Your task to perform on an android device: Empty the shopping cart on bestbuy.com. Add "asus rog" to the cart on bestbuy.com Image 0: 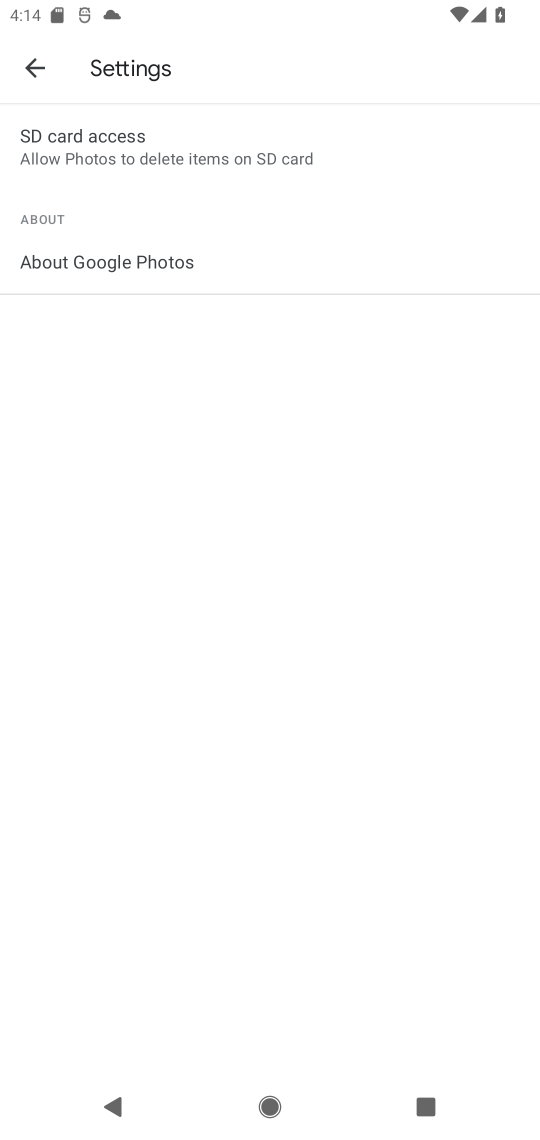
Step 0: press home button
Your task to perform on an android device: Empty the shopping cart on bestbuy.com. Add "asus rog" to the cart on bestbuy.com Image 1: 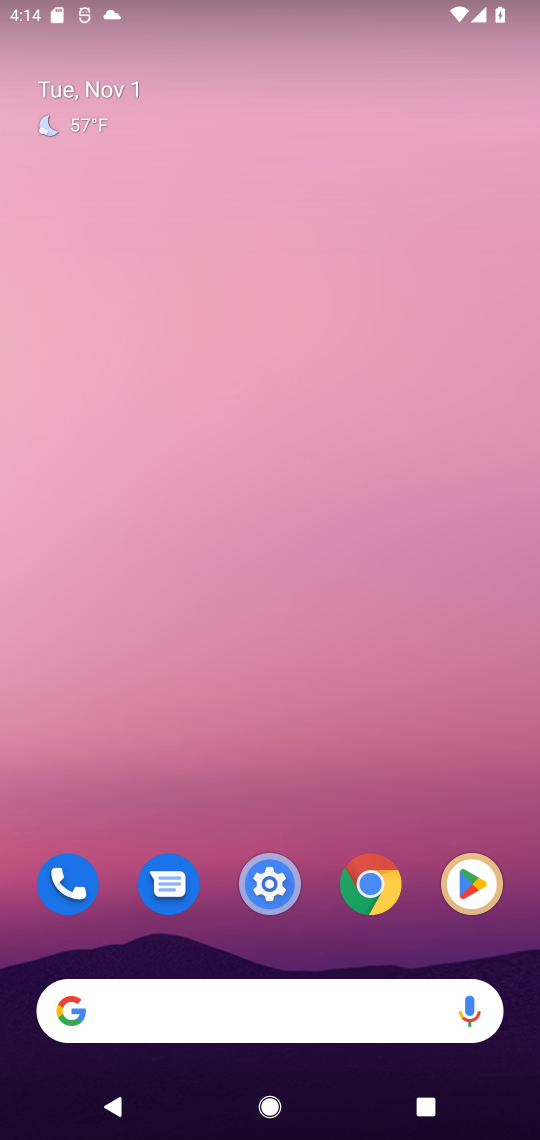
Step 1: press home button
Your task to perform on an android device: Empty the shopping cart on bestbuy.com. Add "asus rog" to the cart on bestbuy.com Image 2: 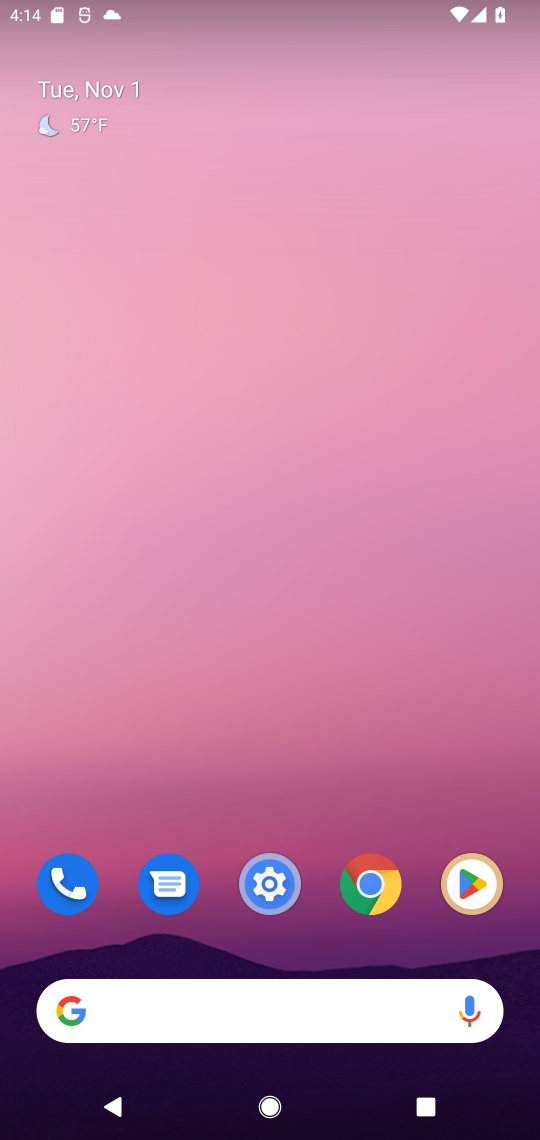
Step 2: click (101, 1014)
Your task to perform on an android device: Empty the shopping cart on bestbuy.com. Add "asus rog" to the cart on bestbuy.com Image 3: 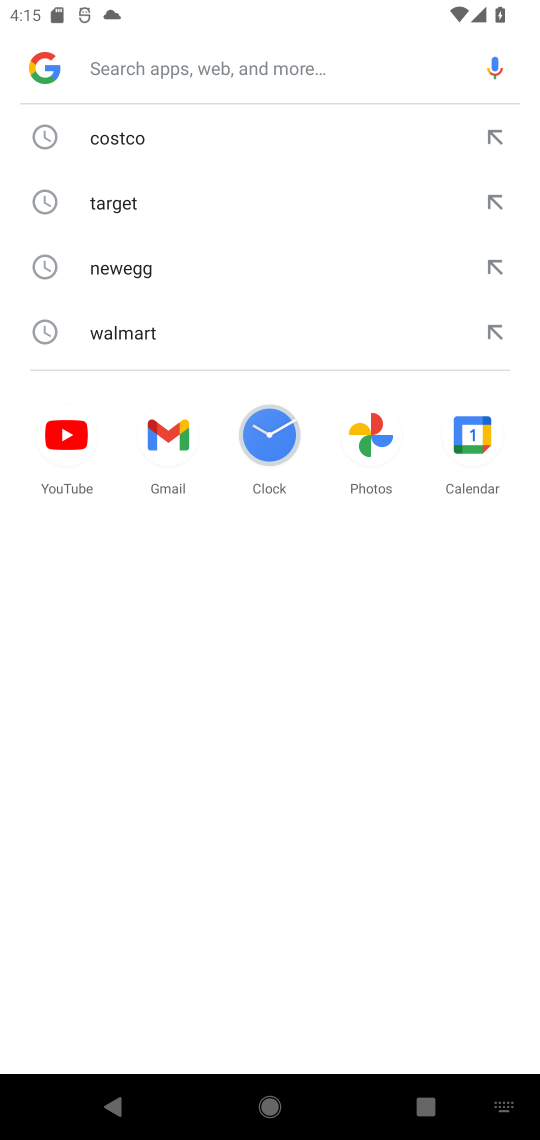
Step 3: type "bestbuy.com"
Your task to perform on an android device: Empty the shopping cart on bestbuy.com. Add "asus rog" to the cart on bestbuy.com Image 4: 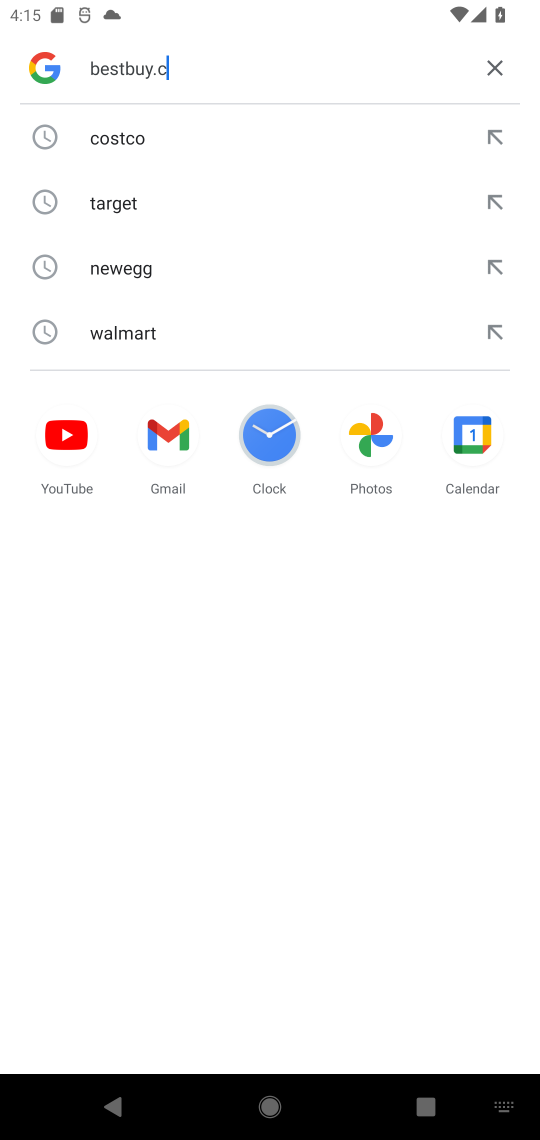
Step 4: press enter
Your task to perform on an android device: Empty the shopping cart on bestbuy.com. Add "asus rog" to the cart on bestbuy.com Image 5: 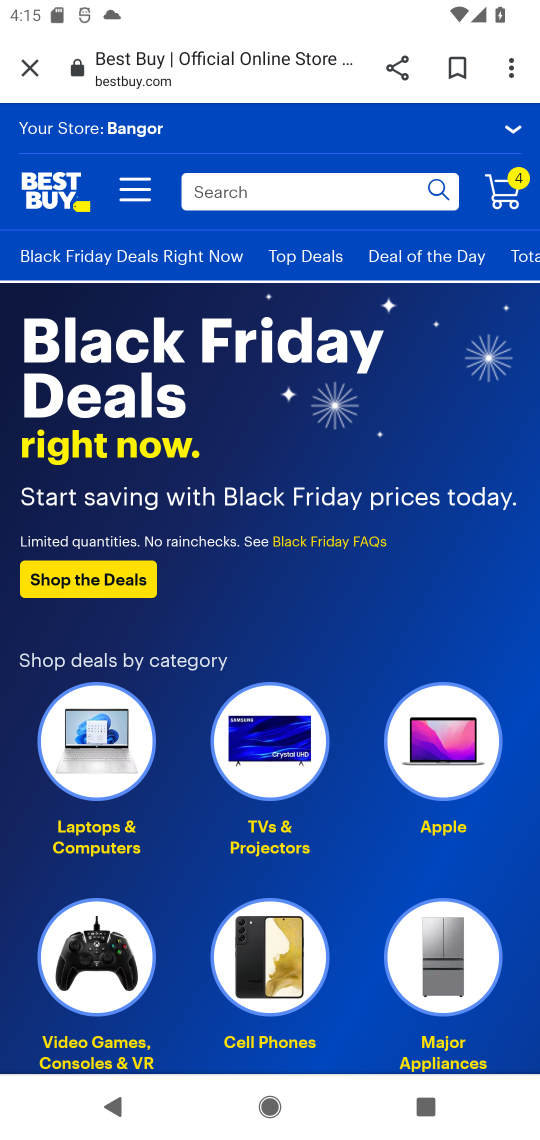
Step 5: click (505, 183)
Your task to perform on an android device: Empty the shopping cart on bestbuy.com. Add "asus rog" to the cart on bestbuy.com Image 6: 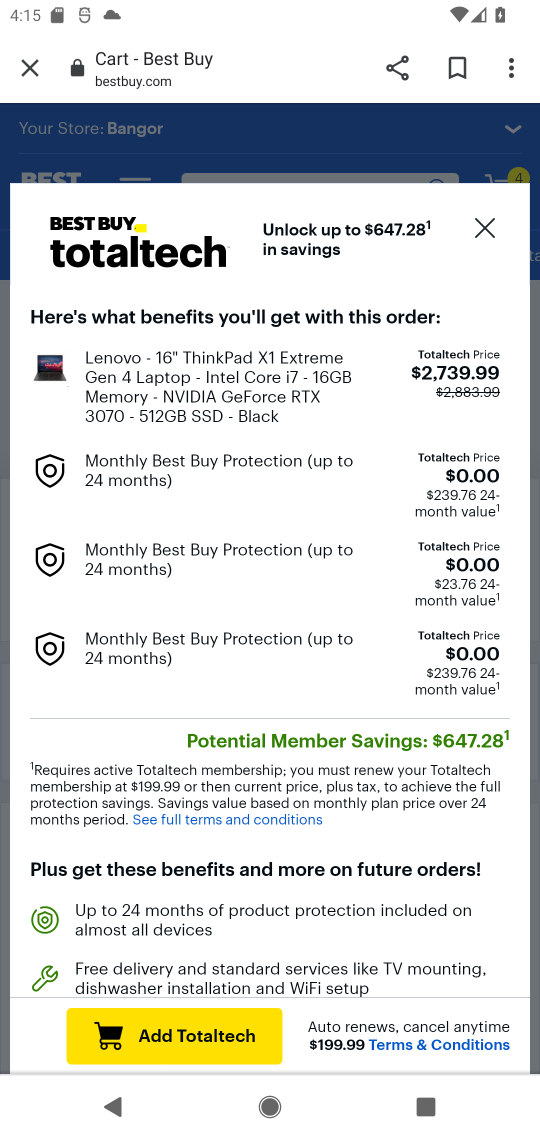
Step 6: click (485, 231)
Your task to perform on an android device: Empty the shopping cart on bestbuy.com. Add "asus rog" to the cart on bestbuy.com Image 7: 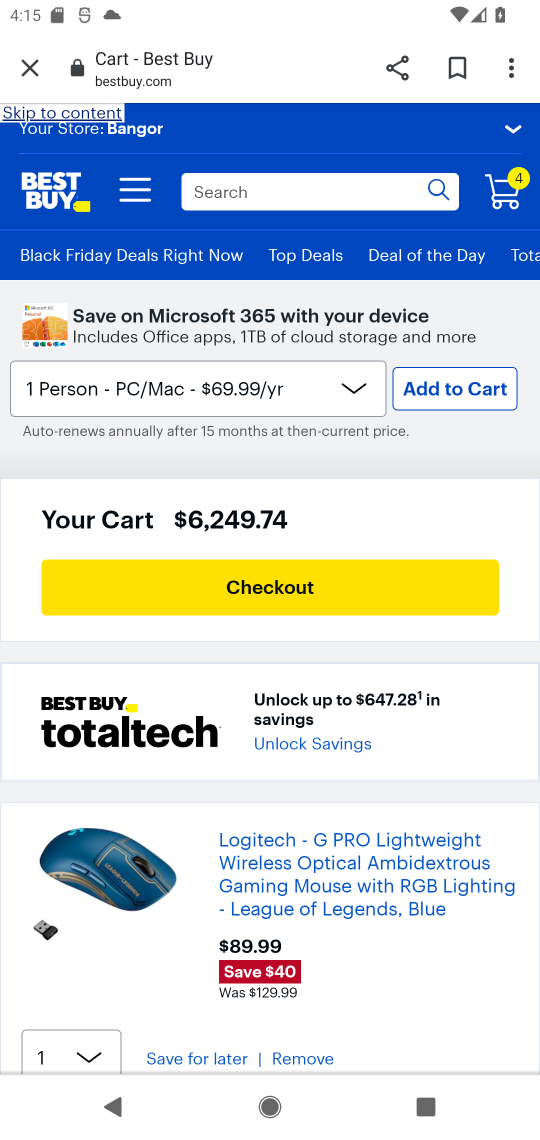
Step 7: drag from (330, 858) to (320, 523)
Your task to perform on an android device: Empty the shopping cart on bestbuy.com. Add "asus rog" to the cart on bestbuy.com Image 8: 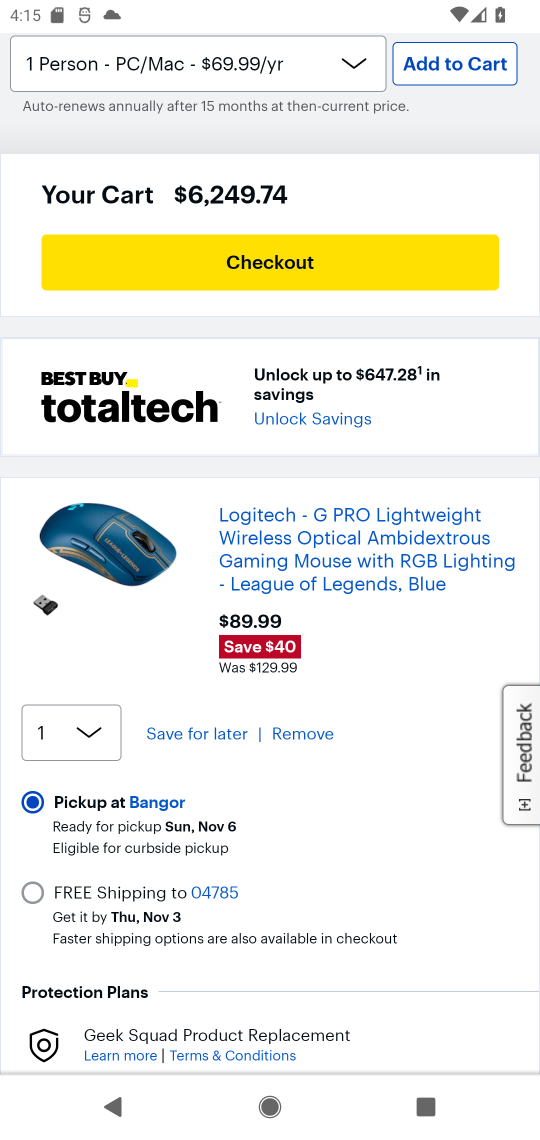
Step 8: drag from (408, 458) to (382, 810)
Your task to perform on an android device: Empty the shopping cart on bestbuy.com. Add "asus rog" to the cart on bestbuy.com Image 9: 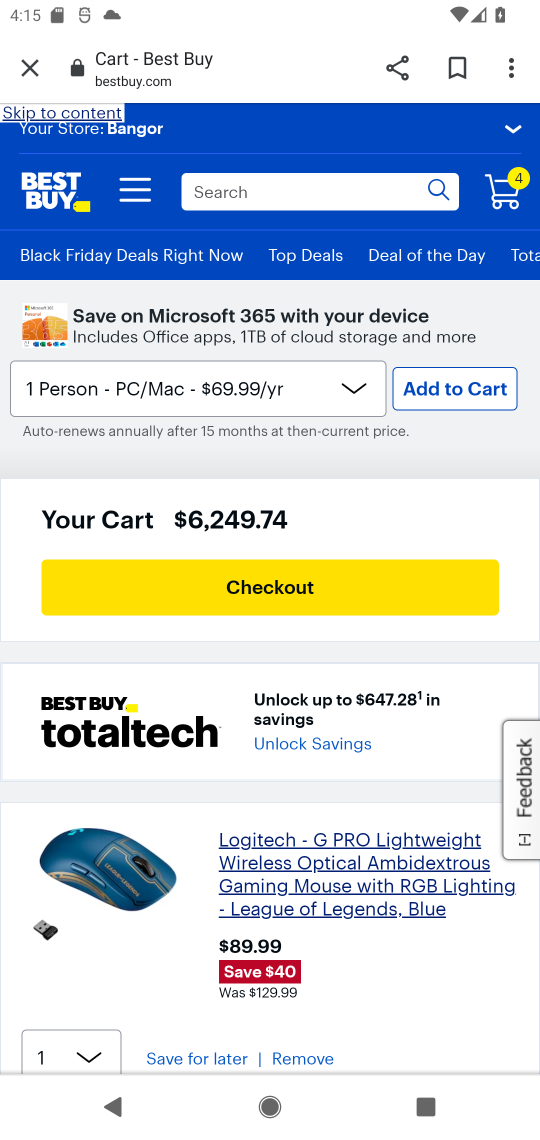
Step 9: press back button
Your task to perform on an android device: Empty the shopping cart on bestbuy.com. Add "asus rog" to the cart on bestbuy.com Image 10: 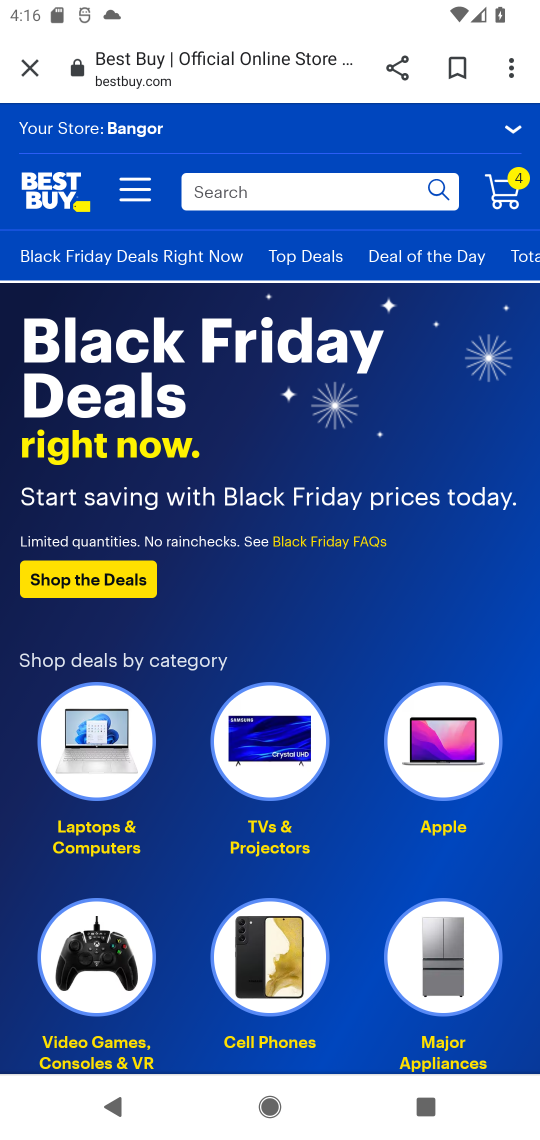
Step 10: click (493, 194)
Your task to perform on an android device: Empty the shopping cart on bestbuy.com. Add "asus rog" to the cart on bestbuy.com Image 11: 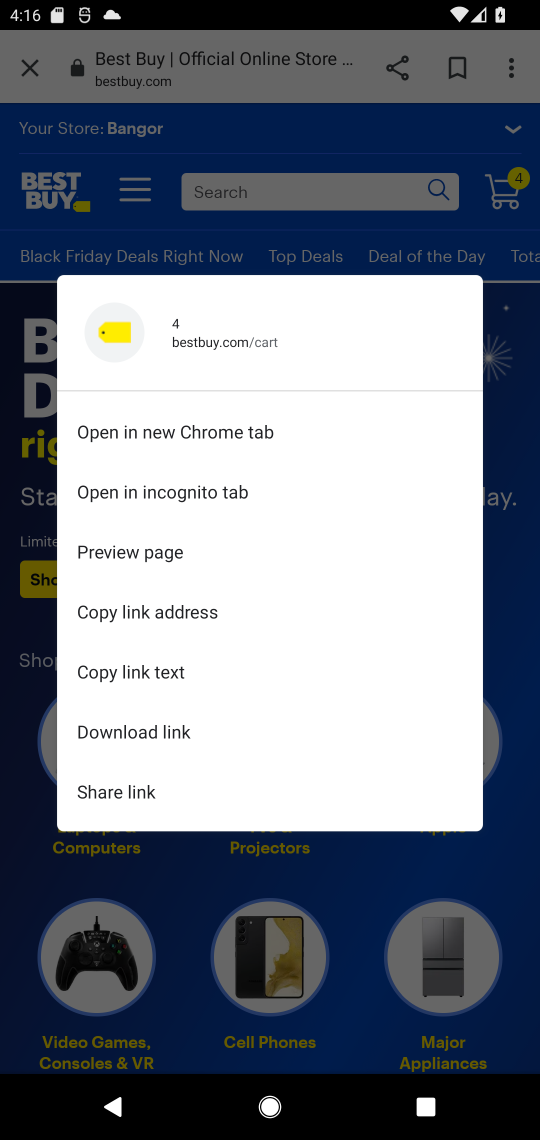
Step 11: click (391, 895)
Your task to perform on an android device: Empty the shopping cart on bestbuy.com. Add "asus rog" to the cart on bestbuy.com Image 12: 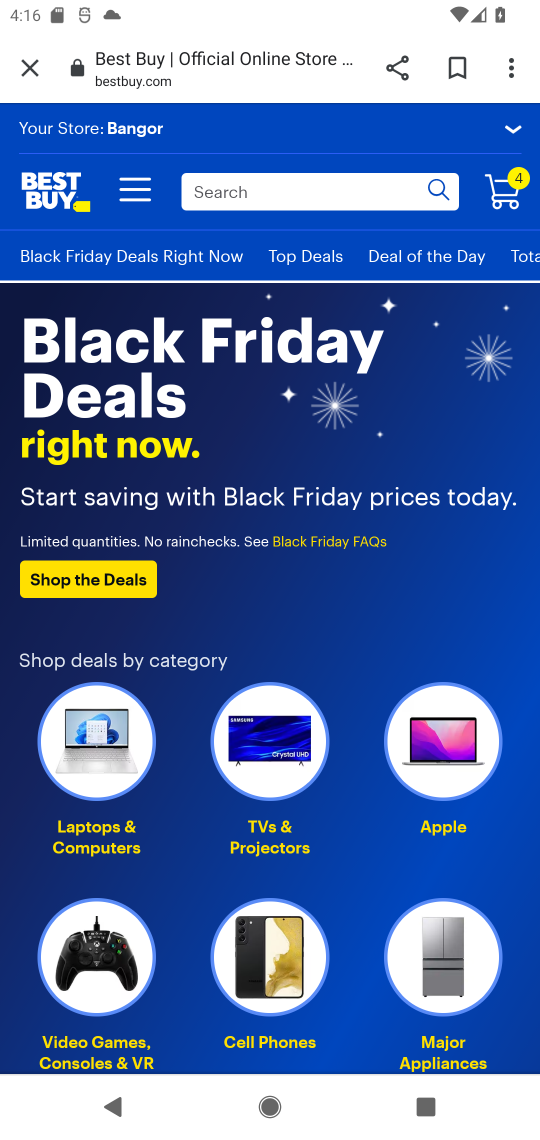
Step 12: click (520, 197)
Your task to perform on an android device: Empty the shopping cart on bestbuy.com. Add "asus rog" to the cart on bestbuy.com Image 13: 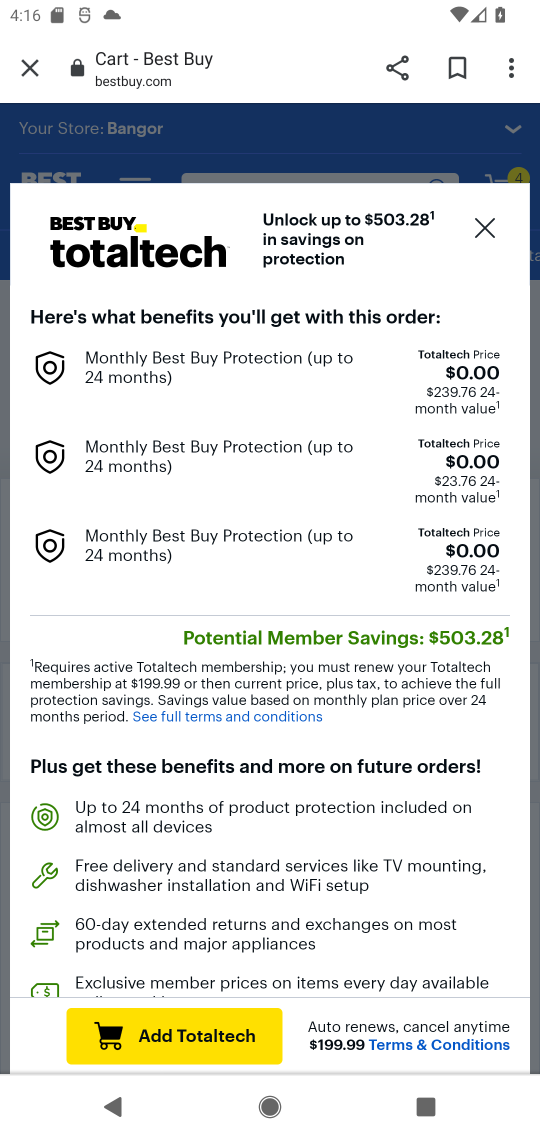
Step 13: click (480, 215)
Your task to perform on an android device: Empty the shopping cart on bestbuy.com. Add "asus rog" to the cart on bestbuy.com Image 14: 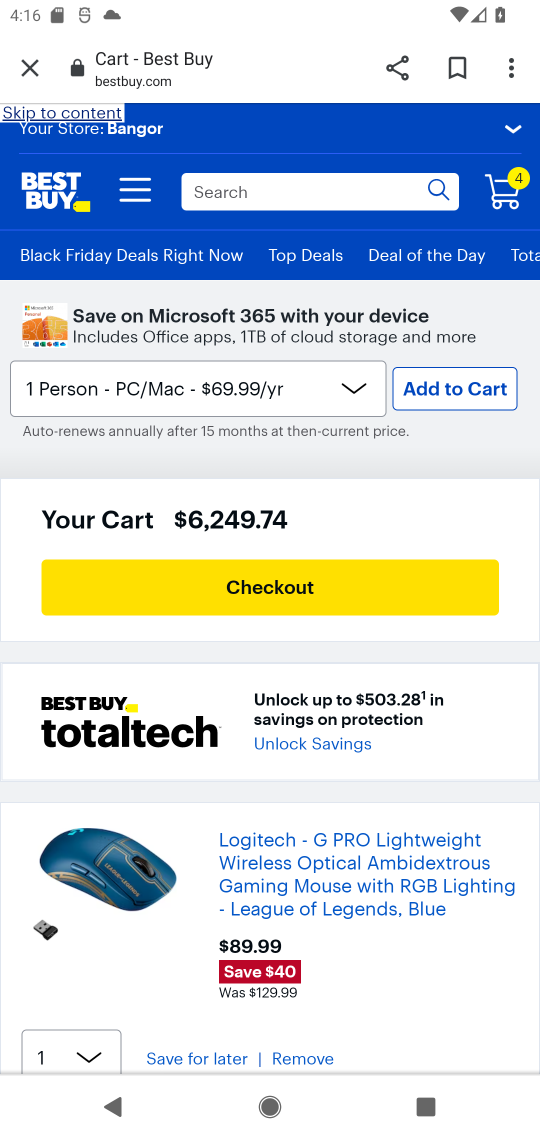
Step 14: drag from (361, 840) to (373, 472)
Your task to perform on an android device: Empty the shopping cart on bestbuy.com. Add "asus rog" to the cart on bestbuy.com Image 15: 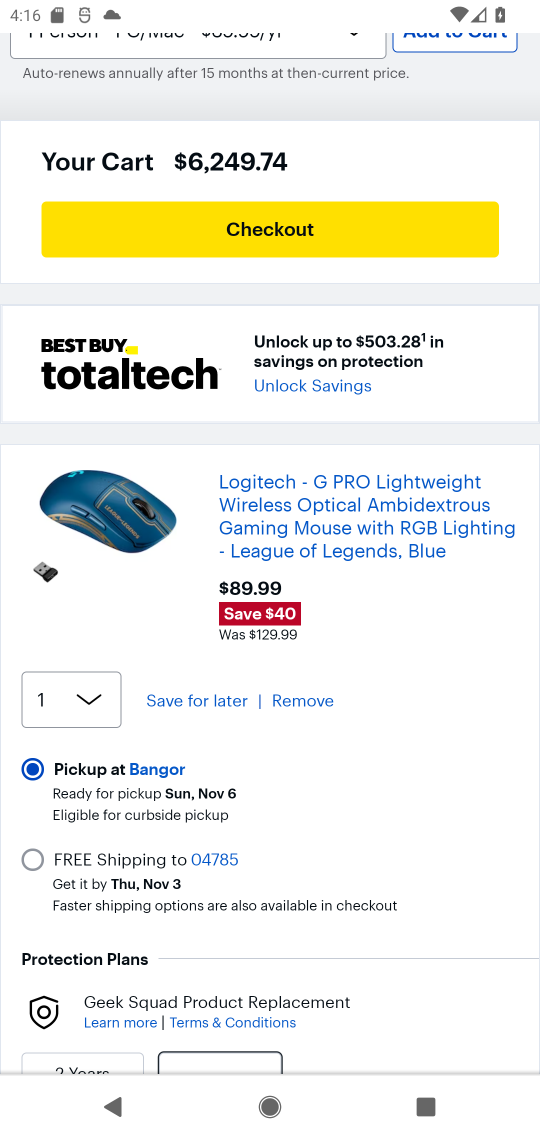
Step 15: click (304, 697)
Your task to perform on an android device: Empty the shopping cart on bestbuy.com. Add "asus rog" to the cart on bestbuy.com Image 16: 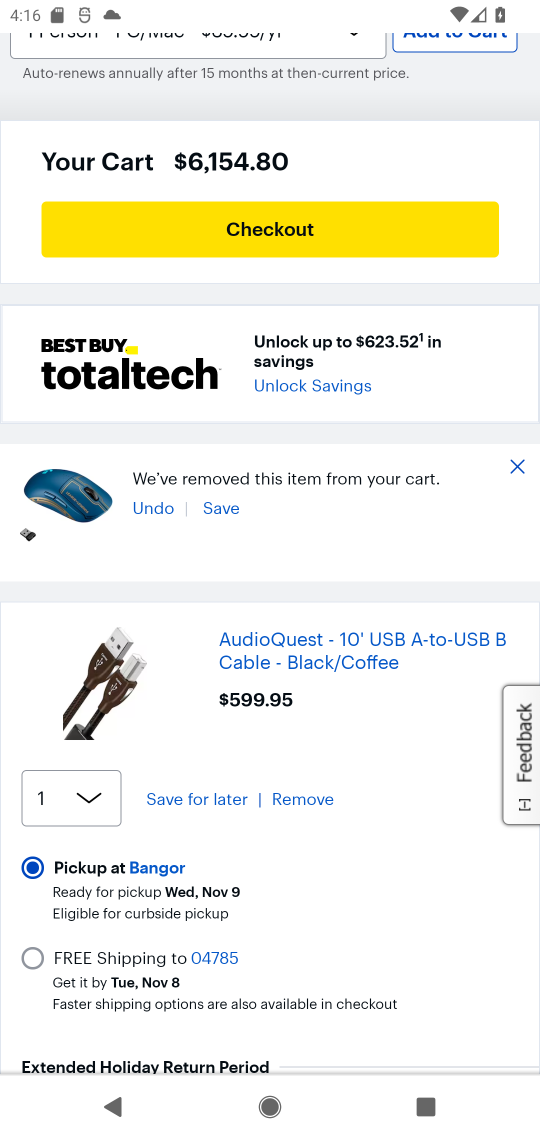
Step 16: click (300, 804)
Your task to perform on an android device: Empty the shopping cart on bestbuy.com. Add "asus rog" to the cart on bestbuy.com Image 17: 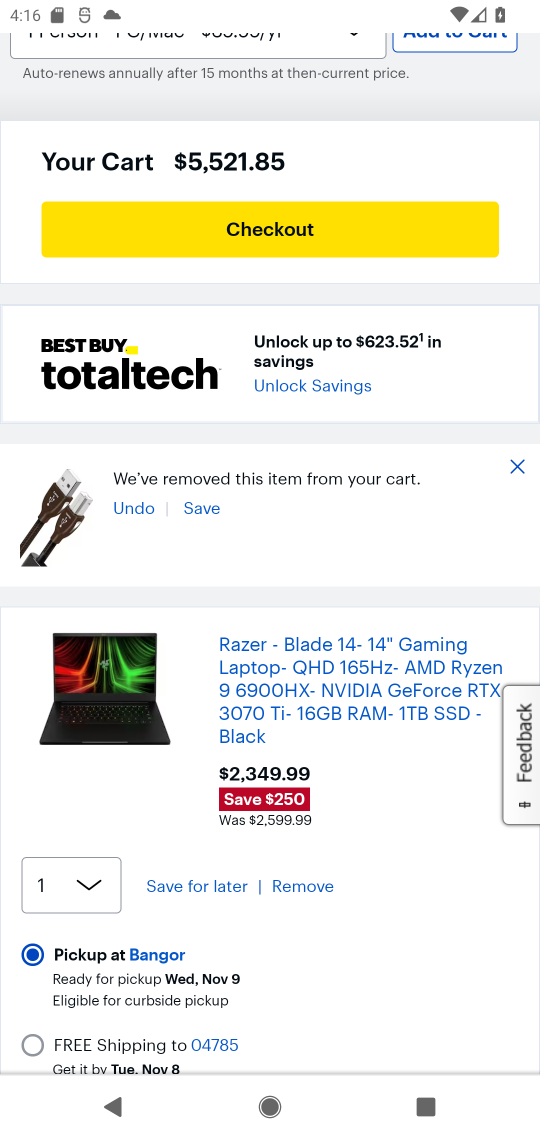
Step 17: click (292, 881)
Your task to perform on an android device: Empty the shopping cart on bestbuy.com. Add "asus rog" to the cart on bestbuy.com Image 18: 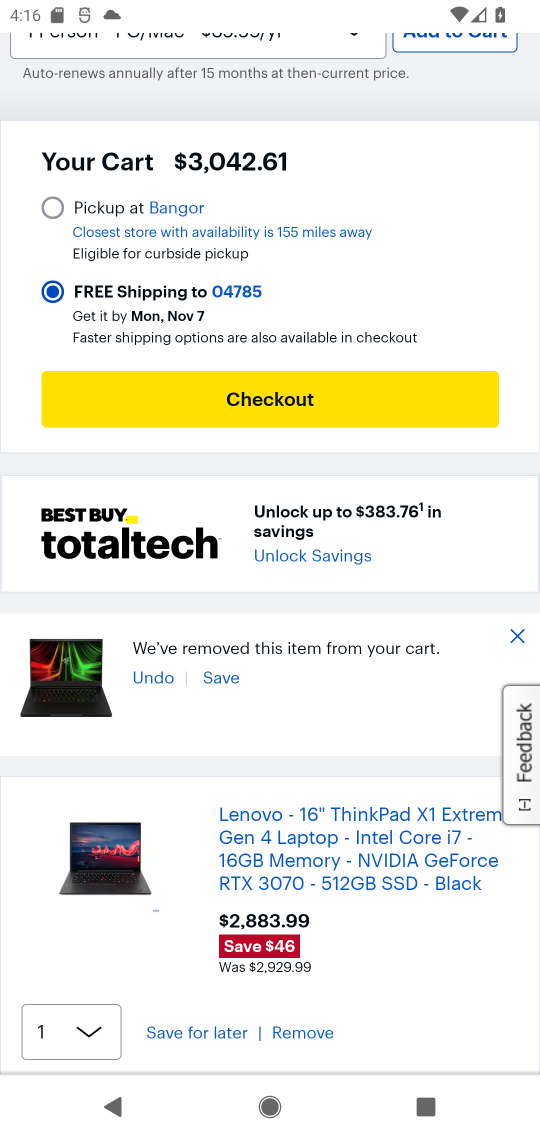
Step 18: click (300, 1033)
Your task to perform on an android device: Empty the shopping cart on bestbuy.com. Add "asus rog" to the cart on bestbuy.com Image 19: 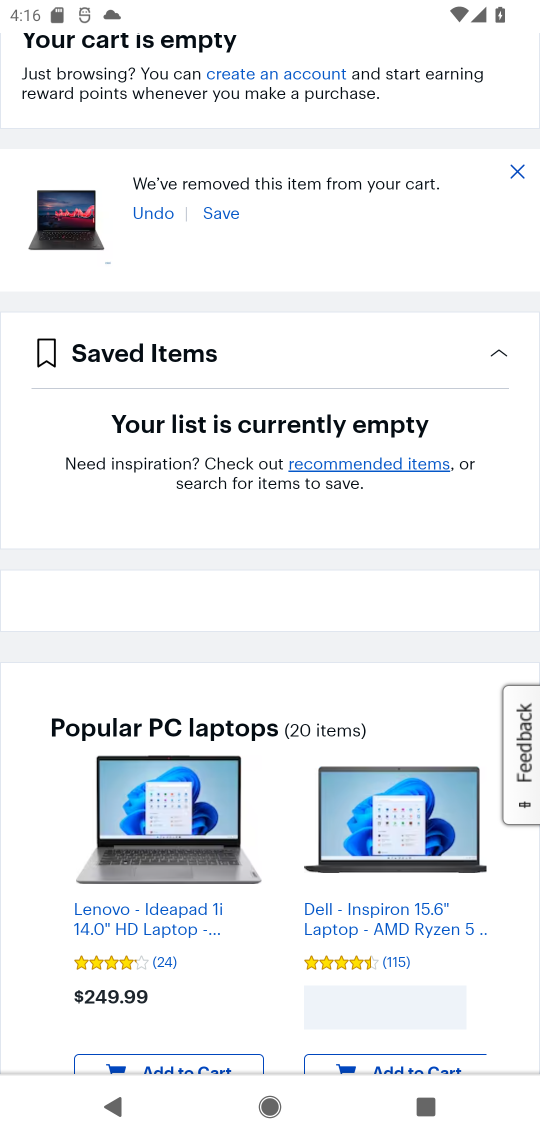
Step 19: click (525, 169)
Your task to perform on an android device: Empty the shopping cart on bestbuy.com. Add "asus rog" to the cart on bestbuy.com Image 20: 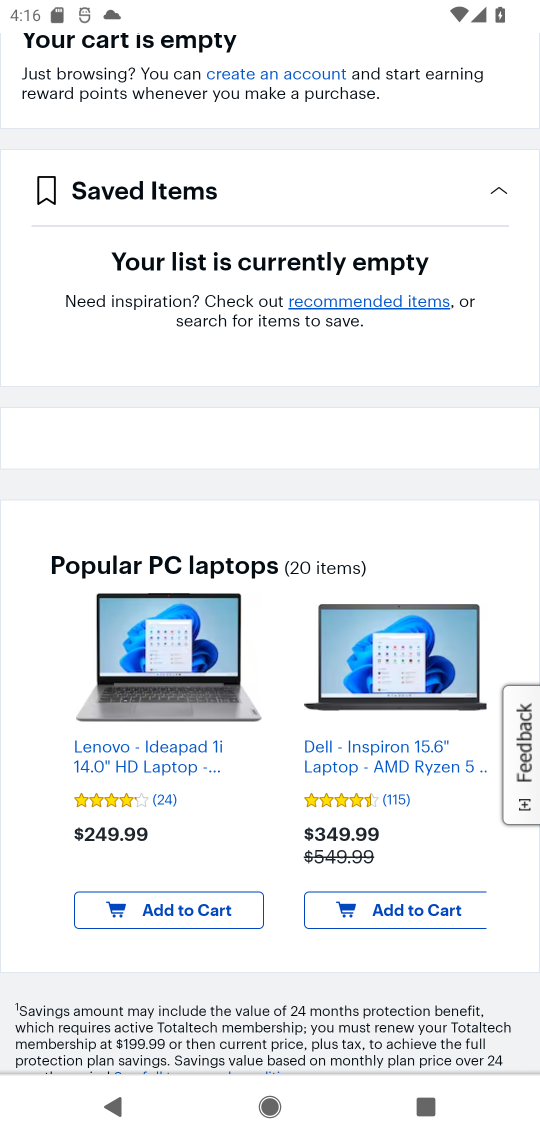
Step 20: drag from (305, 182) to (286, 823)
Your task to perform on an android device: Empty the shopping cart on bestbuy.com. Add "asus rog" to the cart on bestbuy.com Image 21: 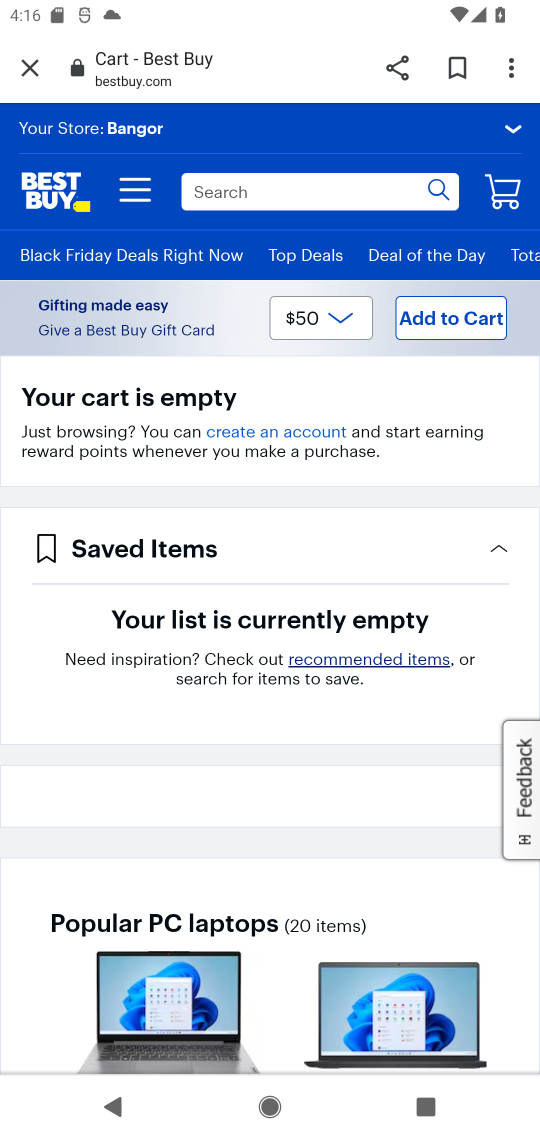
Step 21: click (274, 189)
Your task to perform on an android device: Empty the shopping cart on bestbuy.com. Add "asus rog" to the cart on bestbuy.com Image 22: 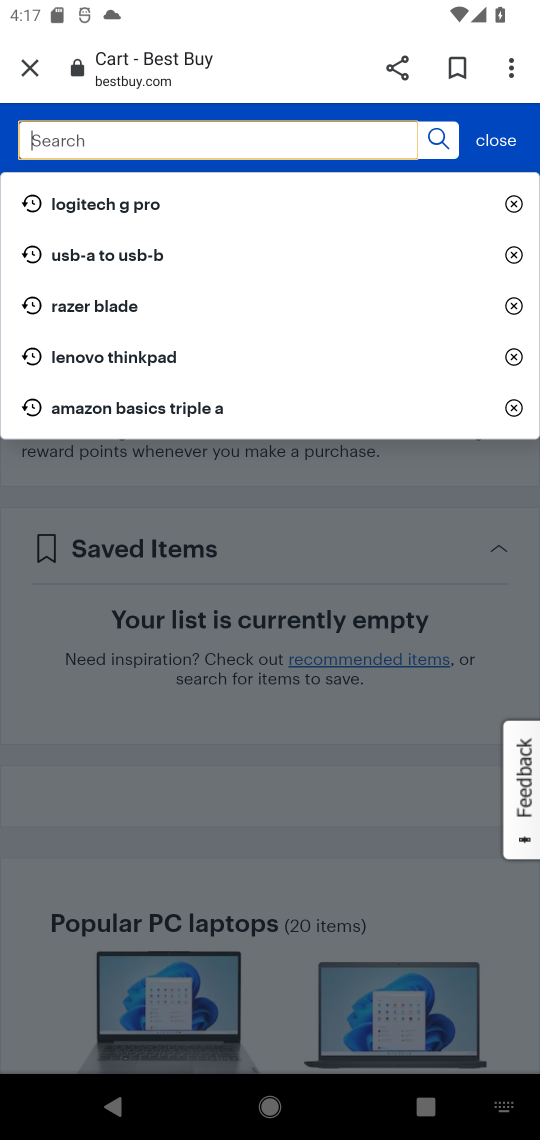
Step 22: type "asus rog"
Your task to perform on an android device: Empty the shopping cart on bestbuy.com. Add "asus rog" to the cart on bestbuy.com Image 23: 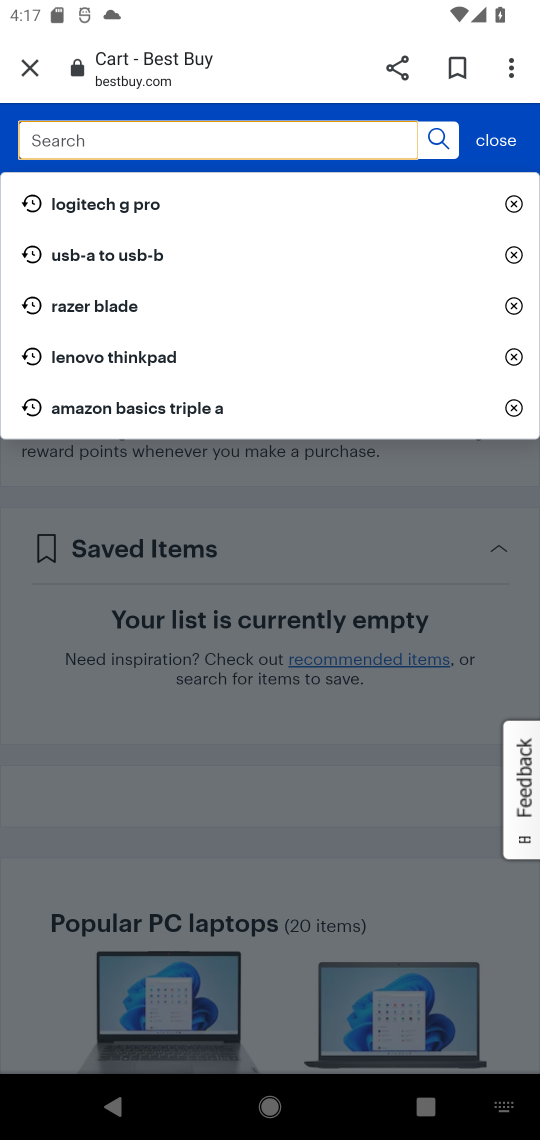
Step 23: press enter
Your task to perform on an android device: Empty the shopping cart on bestbuy.com. Add "asus rog" to the cart on bestbuy.com Image 24: 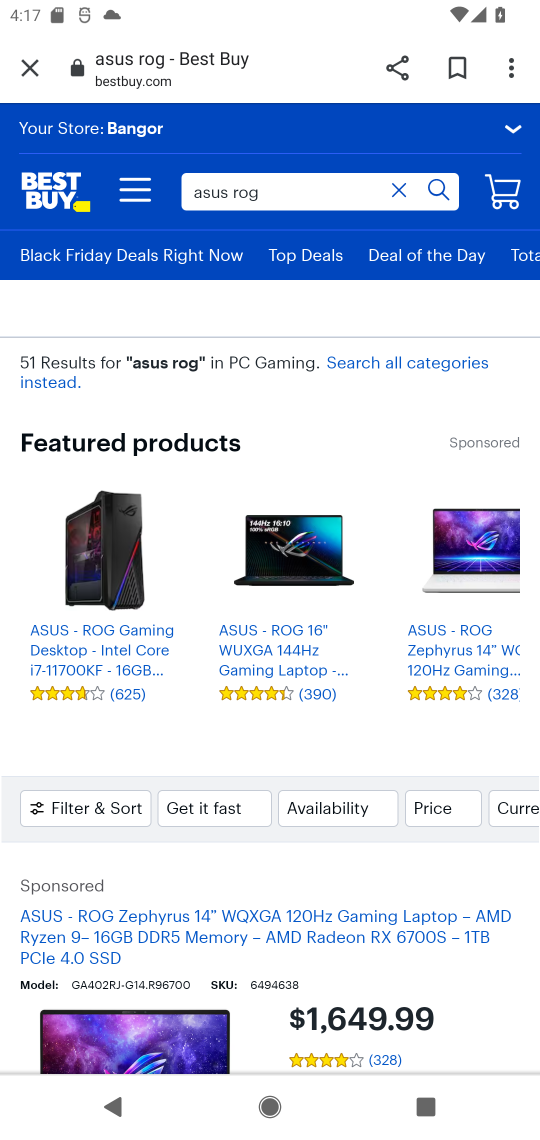
Step 24: drag from (203, 927) to (221, 511)
Your task to perform on an android device: Empty the shopping cart on bestbuy.com. Add "asus rog" to the cart on bestbuy.com Image 25: 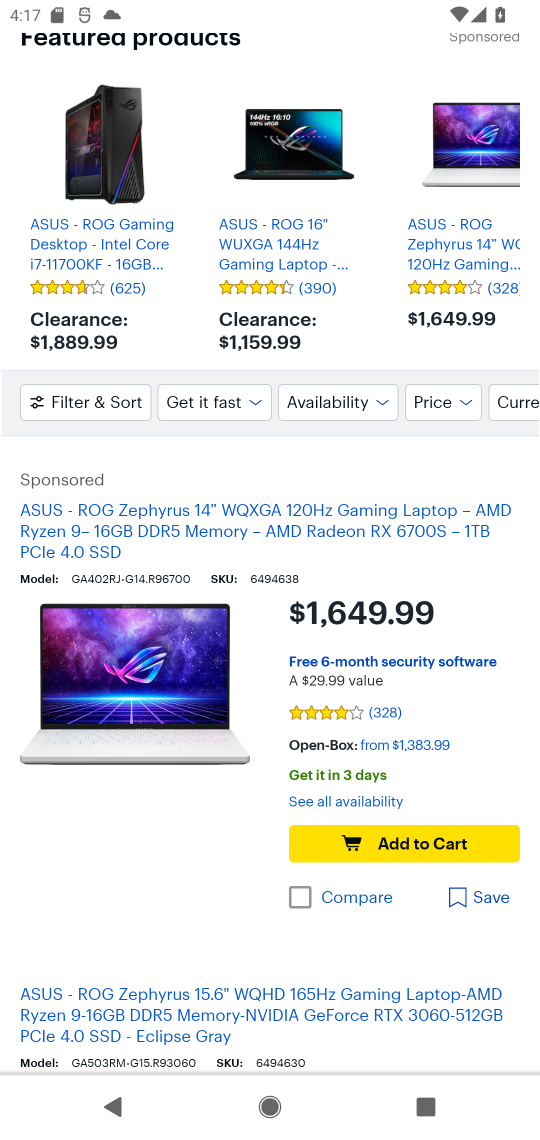
Step 25: click (403, 835)
Your task to perform on an android device: Empty the shopping cart on bestbuy.com. Add "asus rog" to the cart on bestbuy.com Image 26: 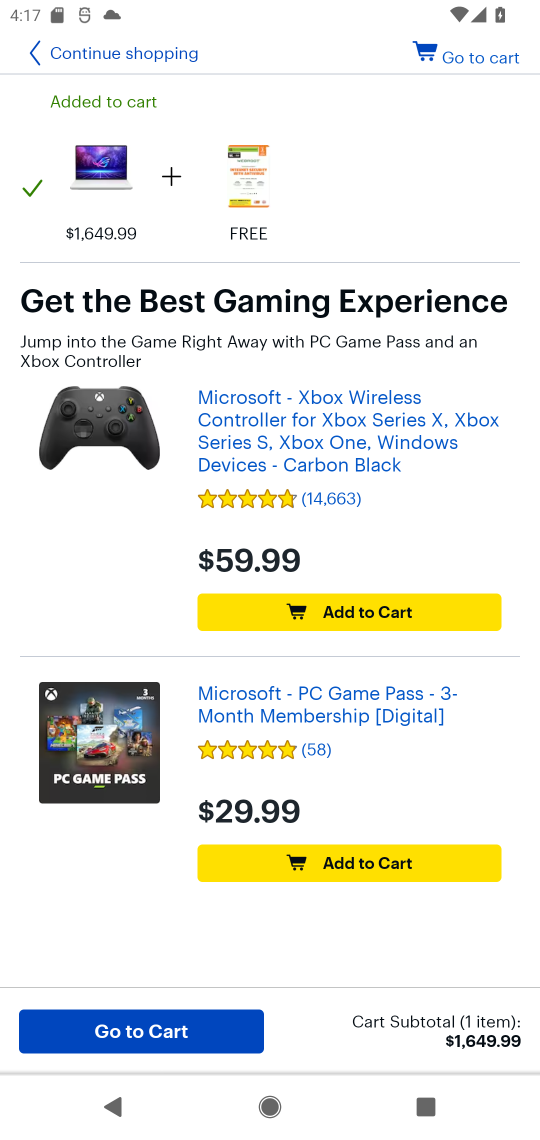
Step 26: task complete